Your task to perform on an android device: turn notification dots on Image 0: 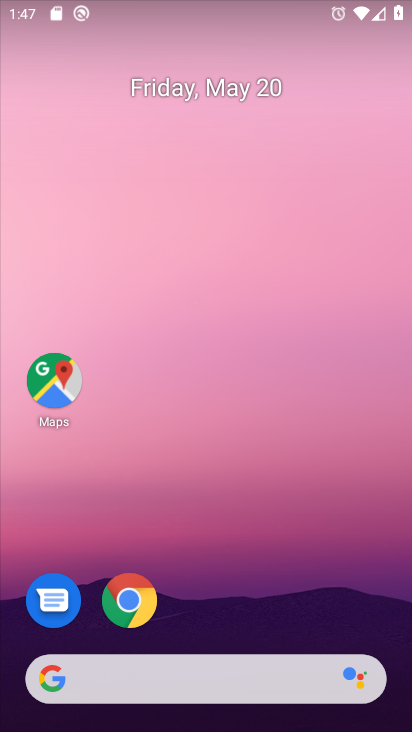
Step 0: drag from (258, 581) to (342, 90)
Your task to perform on an android device: turn notification dots on Image 1: 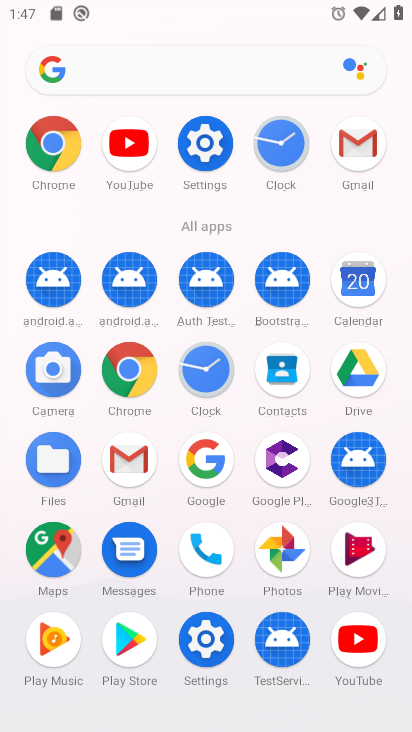
Step 1: click (220, 135)
Your task to perform on an android device: turn notification dots on Image 2: 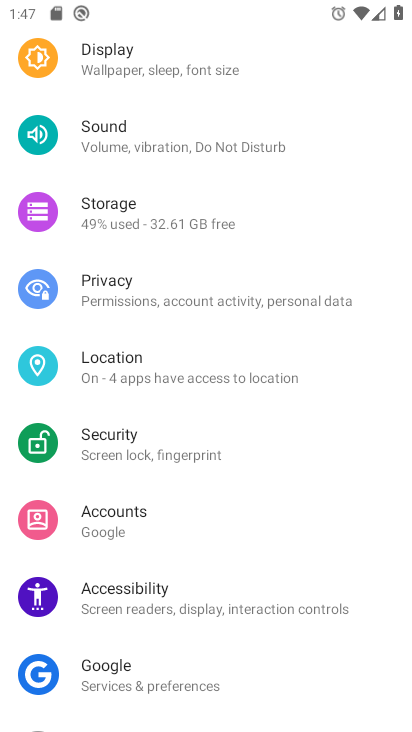
Step 2: drag from (194, 234) to (180, 676)
Your task to perform on an android device: turn notification dots on Image 3: 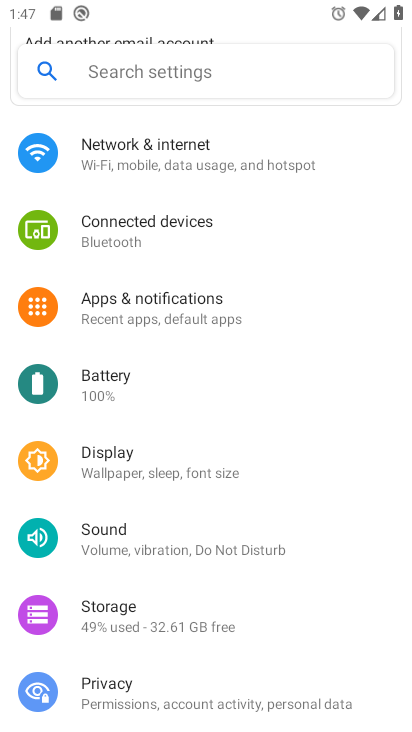
Step 3: click (179, 318)
Your task to perform on an android device: turn notification dots on Image 4: 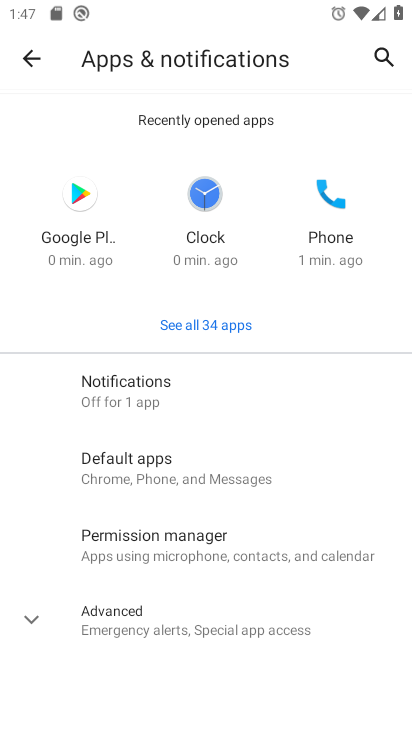
Step 4: click (154, 404)
Your task to perform on an android device: turn notification dots on Image 5: 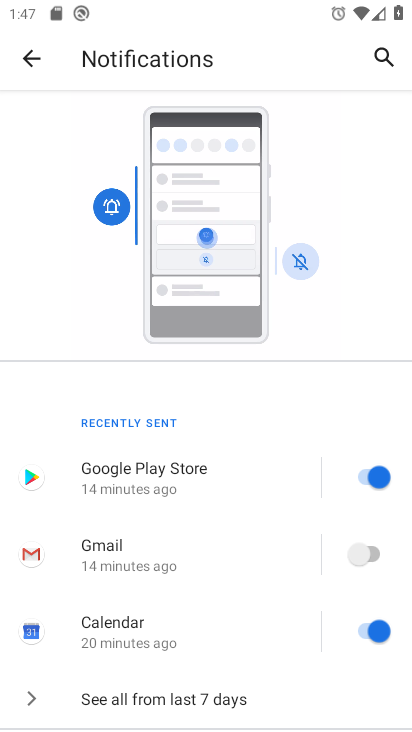
Step 5: drag from (129, 554) to (176, 163)
Your task to perform on an android device: turn notification dots on Image 6: 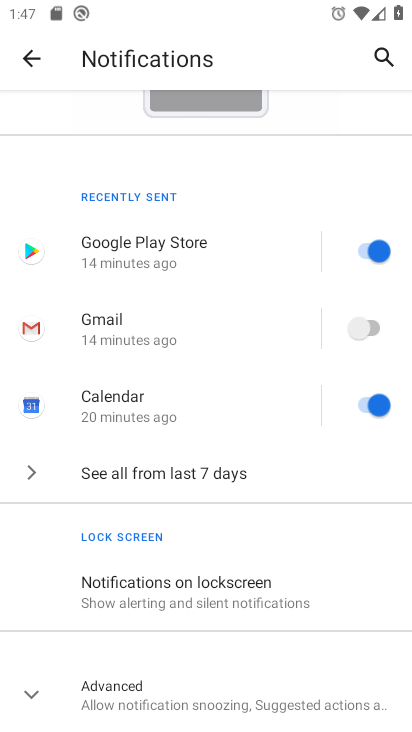
Step 6: click (129, 703)
Your task to perform on an android device: turn notification dots on Image 7: 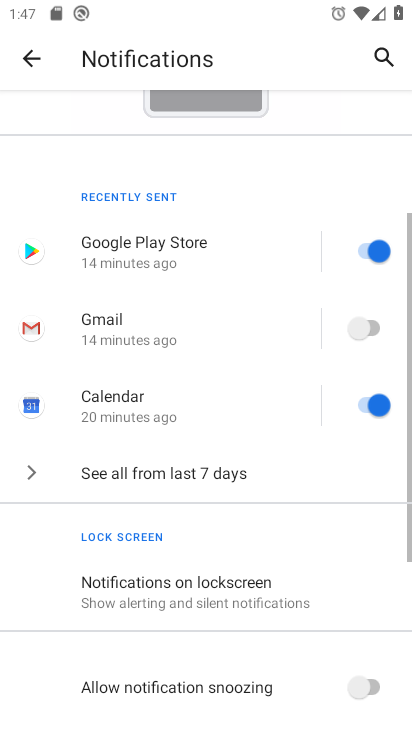
Step 7: task complete